Your task to perform on an android device: Open calendar and show me the second week of next month Image 0: 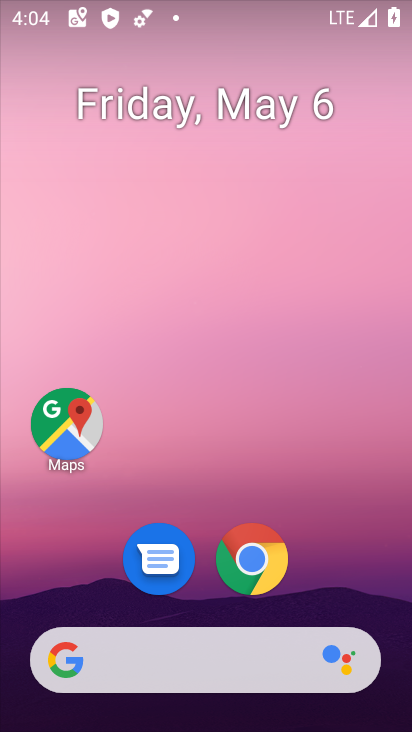
Step 0: drag from (234, 612) to (234, 110)
Your task to perform on an android device: Open calendar and show me the second week of next month Image 1: 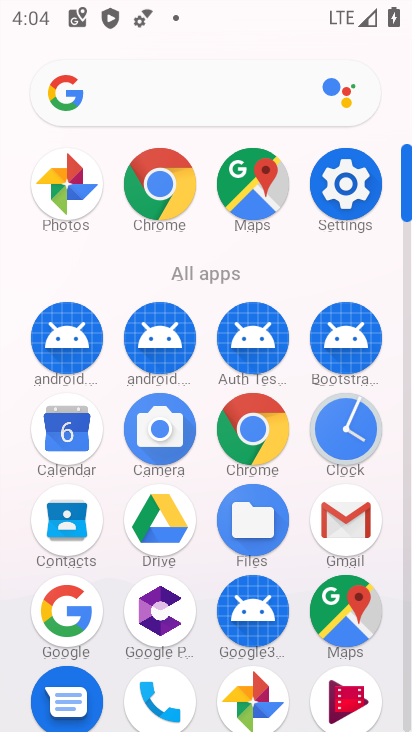
Step 1: click (65, 417)
Your task to perform on an android device: Open calendar and show me the second week of next month Image 2: 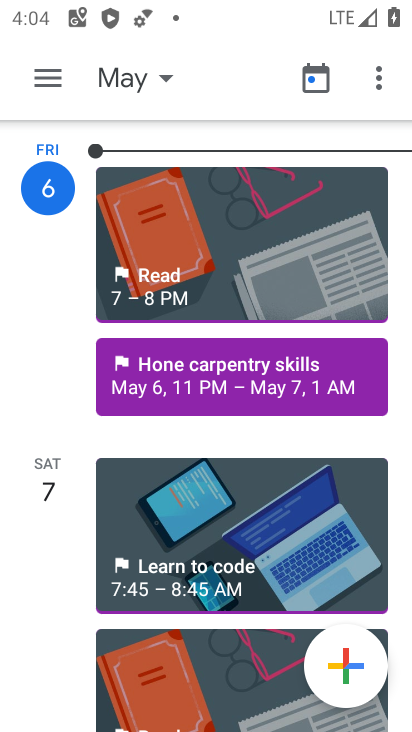
Step 2: click (125, 75)
Your task to perform on an android device: Open calendar and show me the second week of next month Image 3: 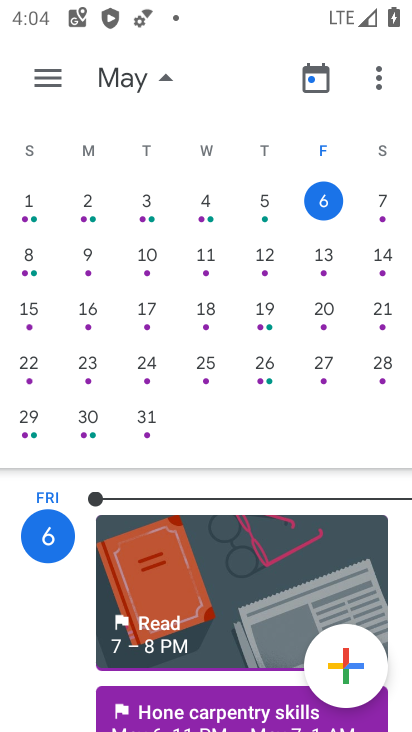
Step 3: drag from (373, 422) to (4, 387)
Your task to perform on an android device: Open calendar and show me the second week of next month Image 4: 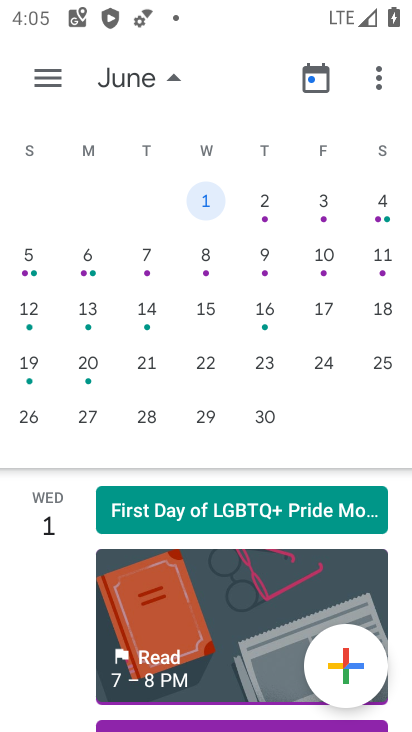
Step 4: click (37, 363)
Your task to perform on an android device: Open calendar and show me the second week of next month Image 5: 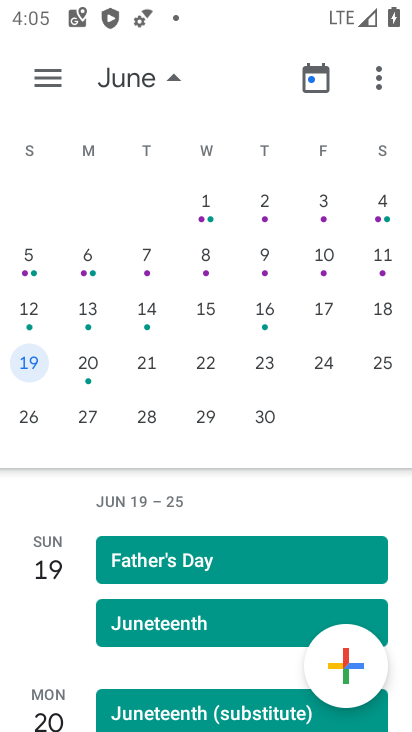
Step 5: task complete